Your task to perform on an android device: Clear all items from cart on target. Search for acer nitro on target, select the first entry, and add it to the cart. Image 0: 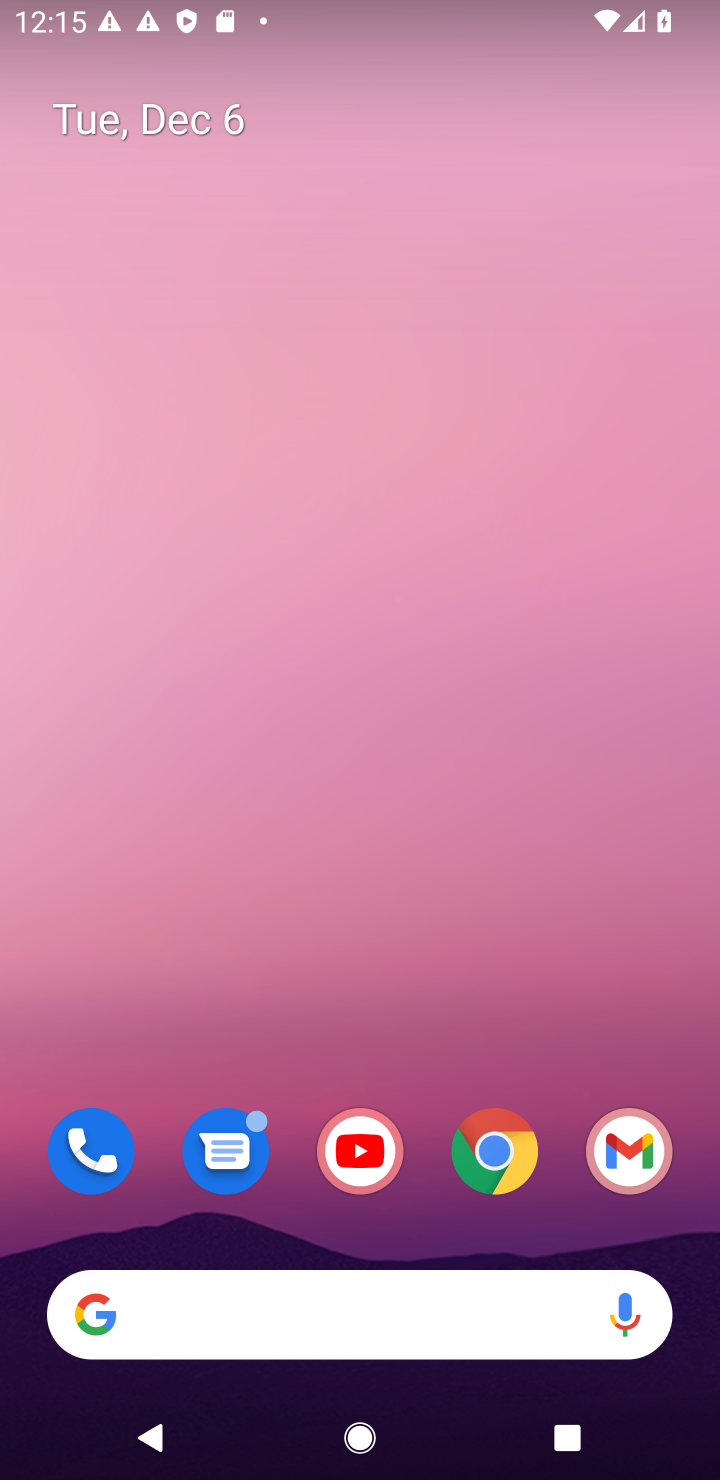
Step 0: click (505, 1153)
Your task to perform on an android device: Clear all items from cart on target. Search for acer nitro on target, select the first entry, and add it to the cart. Image 1: 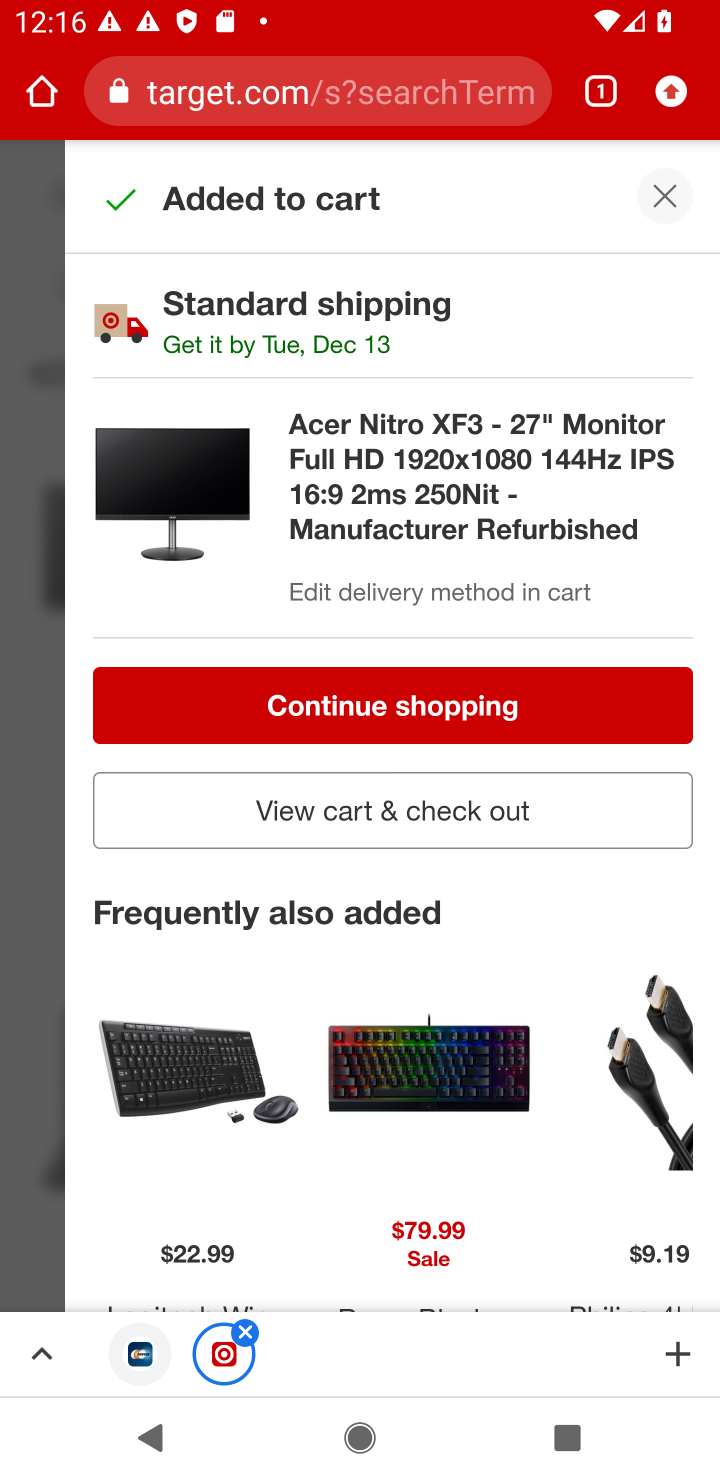
Step 1: click (668, 191)
Your task to perform on an android device: Clear all items from cart on target. Search for acer nitro on target, select the first entry, and add it to the cart. Image 2: 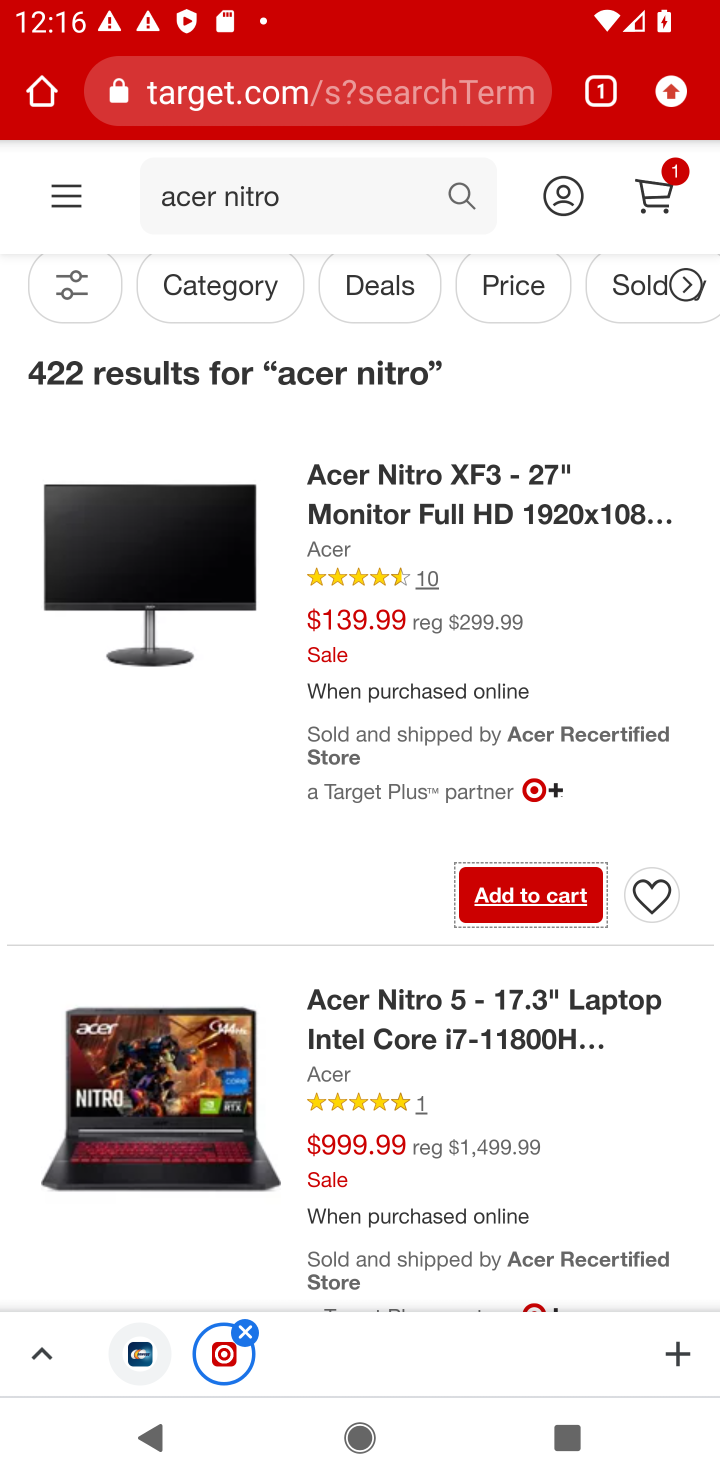
Step 2: click (661, 184)
Your task to perform on an android device: Clear all items from cart on target. Search for acer nitro on target, select the first entry, and add it to the cart. Image 3: 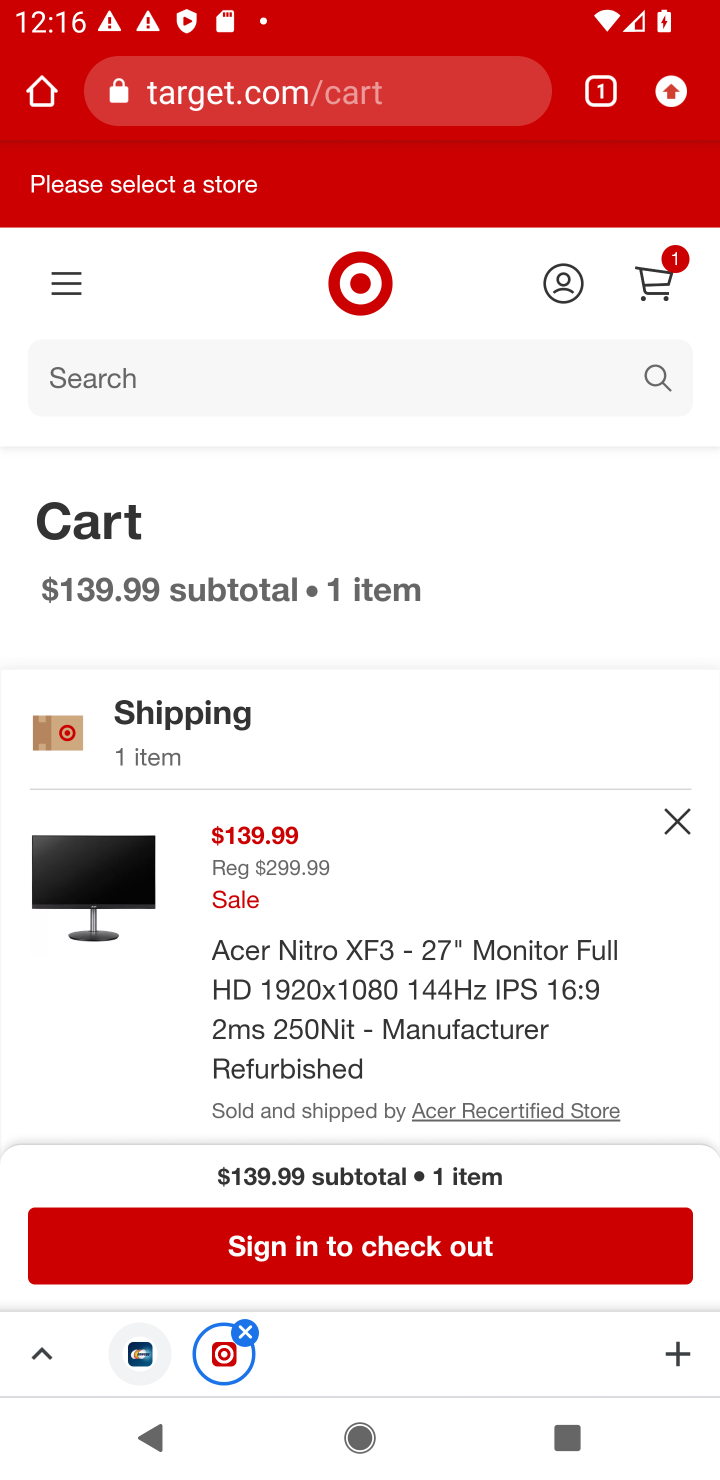
Step 3: drag from (239, 1027) to (274, 714)
Your task to perform on an android device: Clear all items from cart on target. Search for acer nitro on target, select the first entry, and add it to the cart. Image 4: 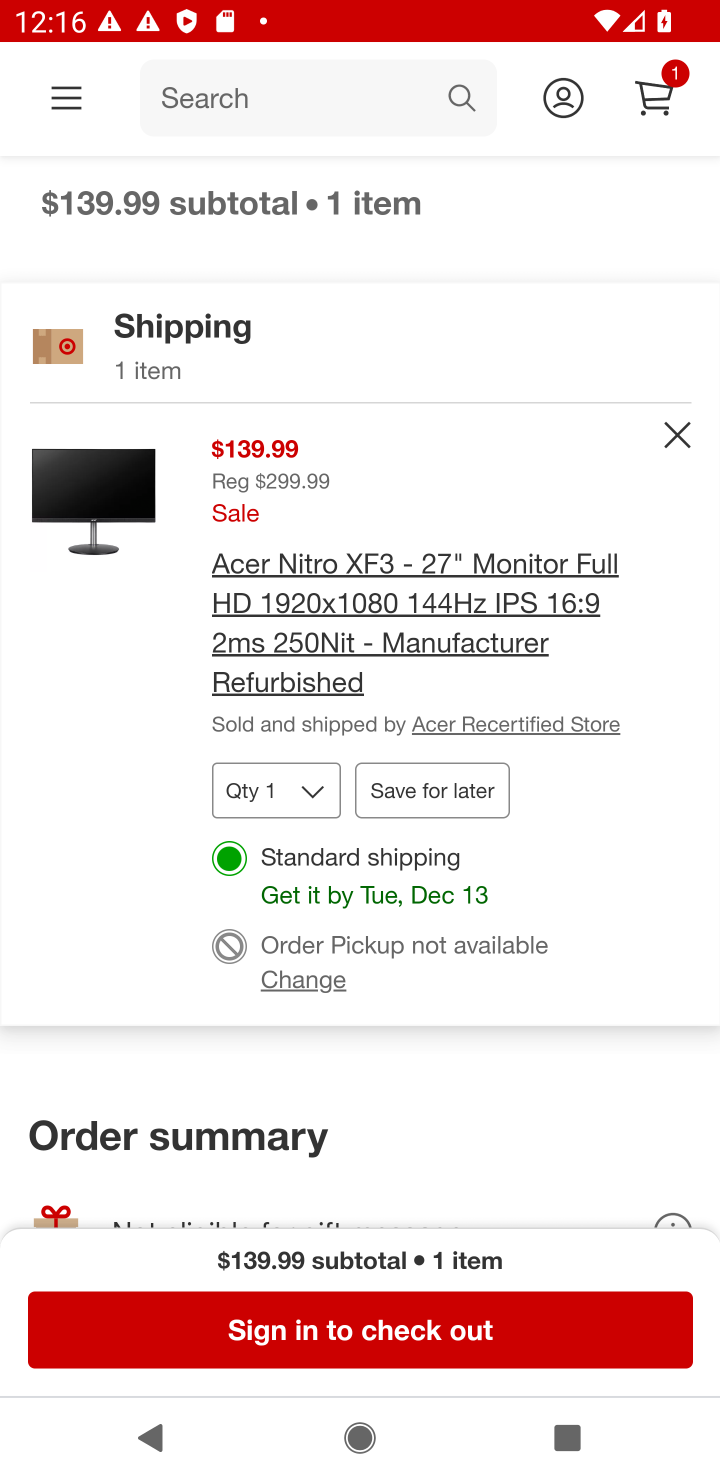
Step 4: click (683, 438)
Your task to perform on an android device: Clear all items from cart on target. Search for acer nitro on target, select the first entry, and add it to the cart. Image 5: 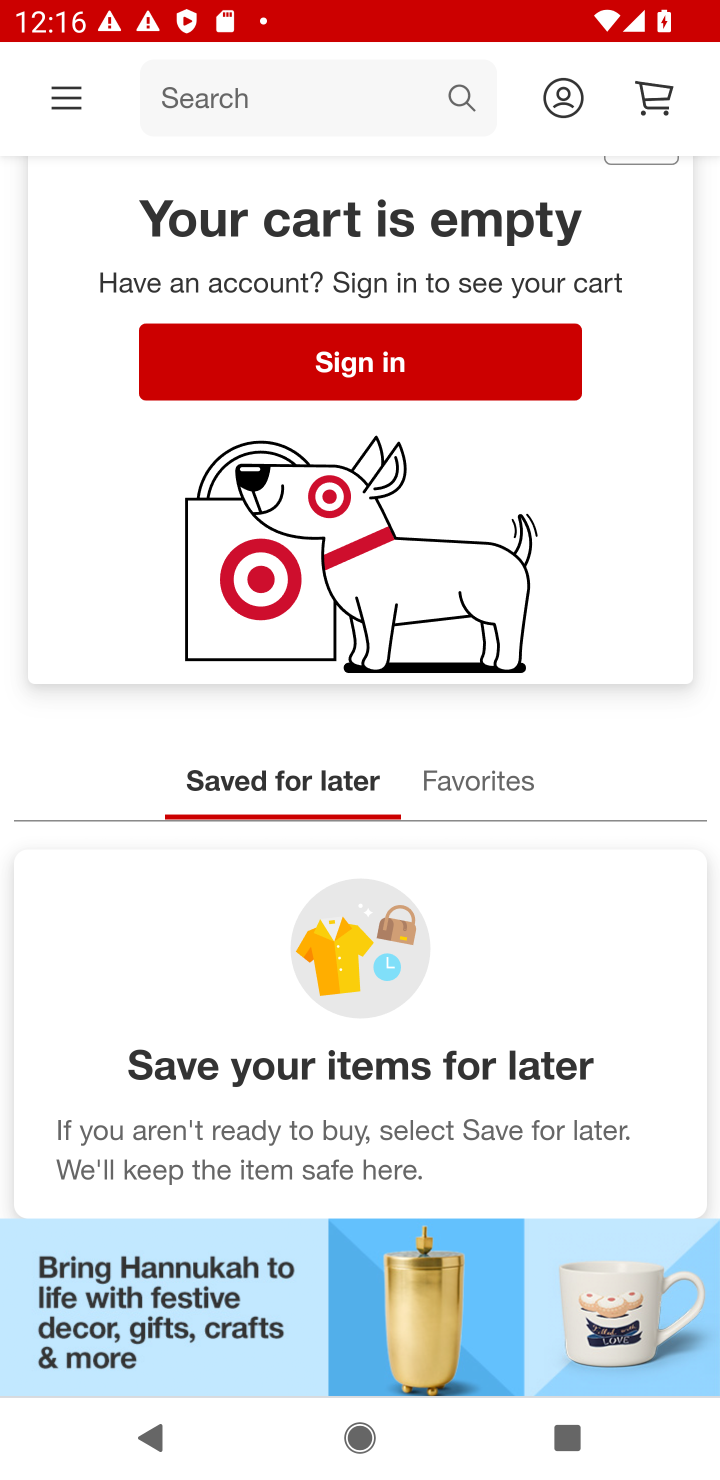
Step 5: click (465, 94)
Your task to perform on an android device: Clear all items from cart on target. Search for acer nitro on target, select the first entry, and add it to the cart. Image 6: 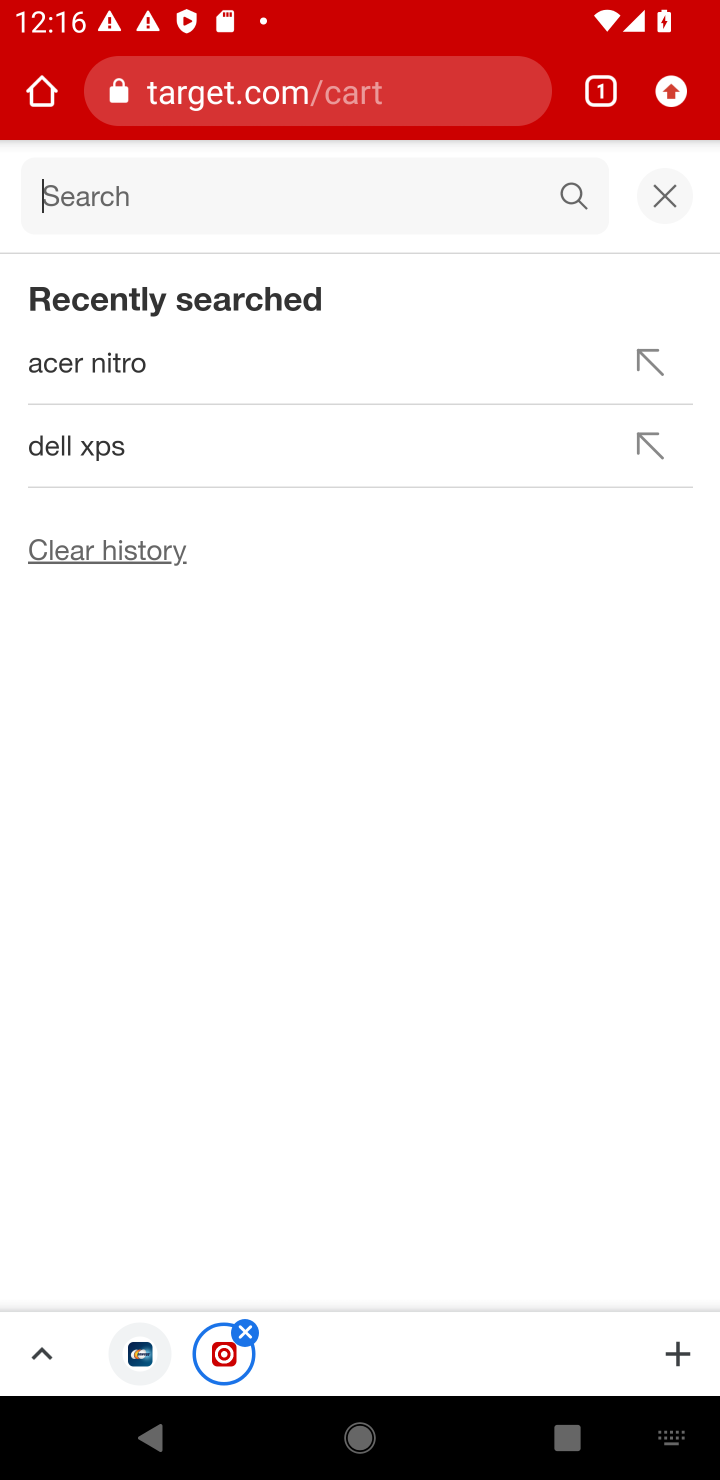
Step 6: type " acer nitro"
Your task to perform on an android device: Clear all items from cart on target. Search for acer nitro on target, select the first entry, and add it to the cart. Image 7: 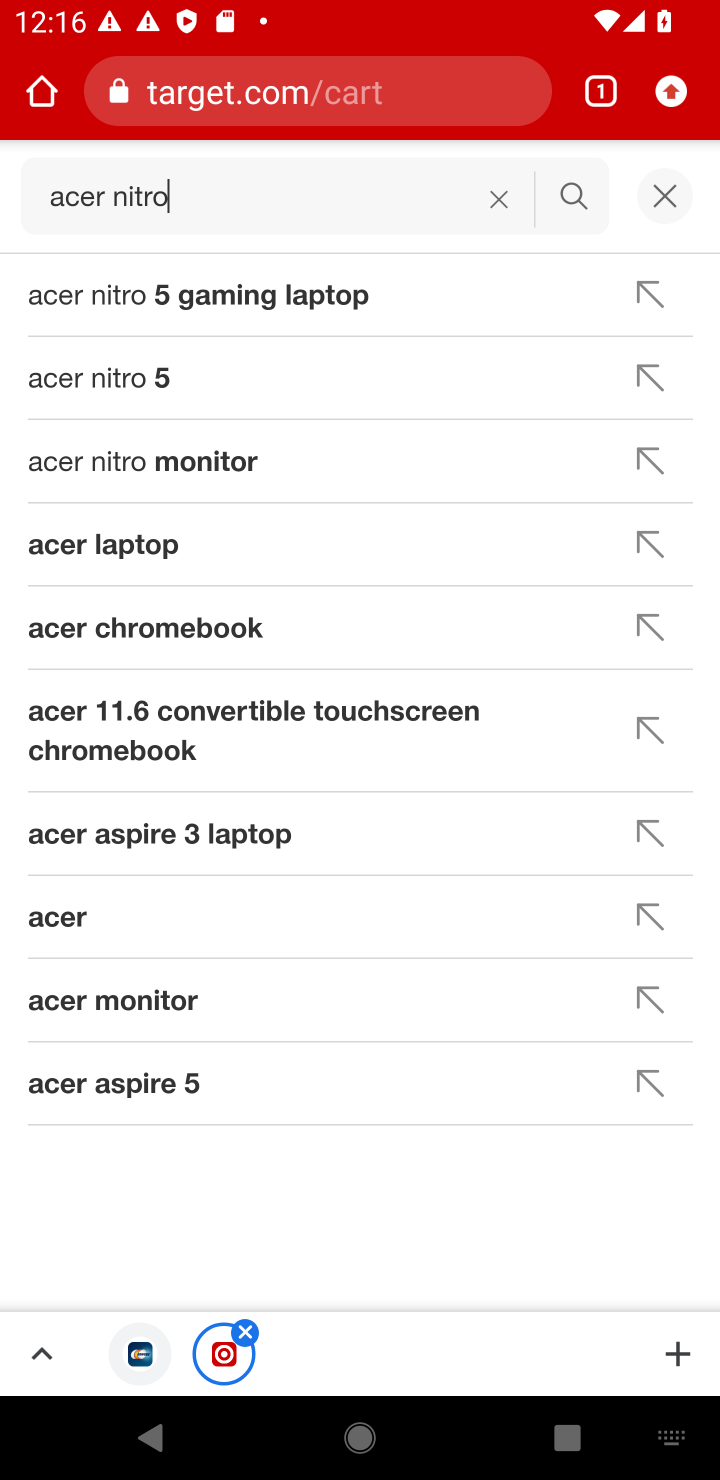
Step 7: click (568, 192)
Your task to perform on an android device: Clear all items from cart on target. Search for acer nitro on target, select the first entry, and add it to the cart. Image 8: 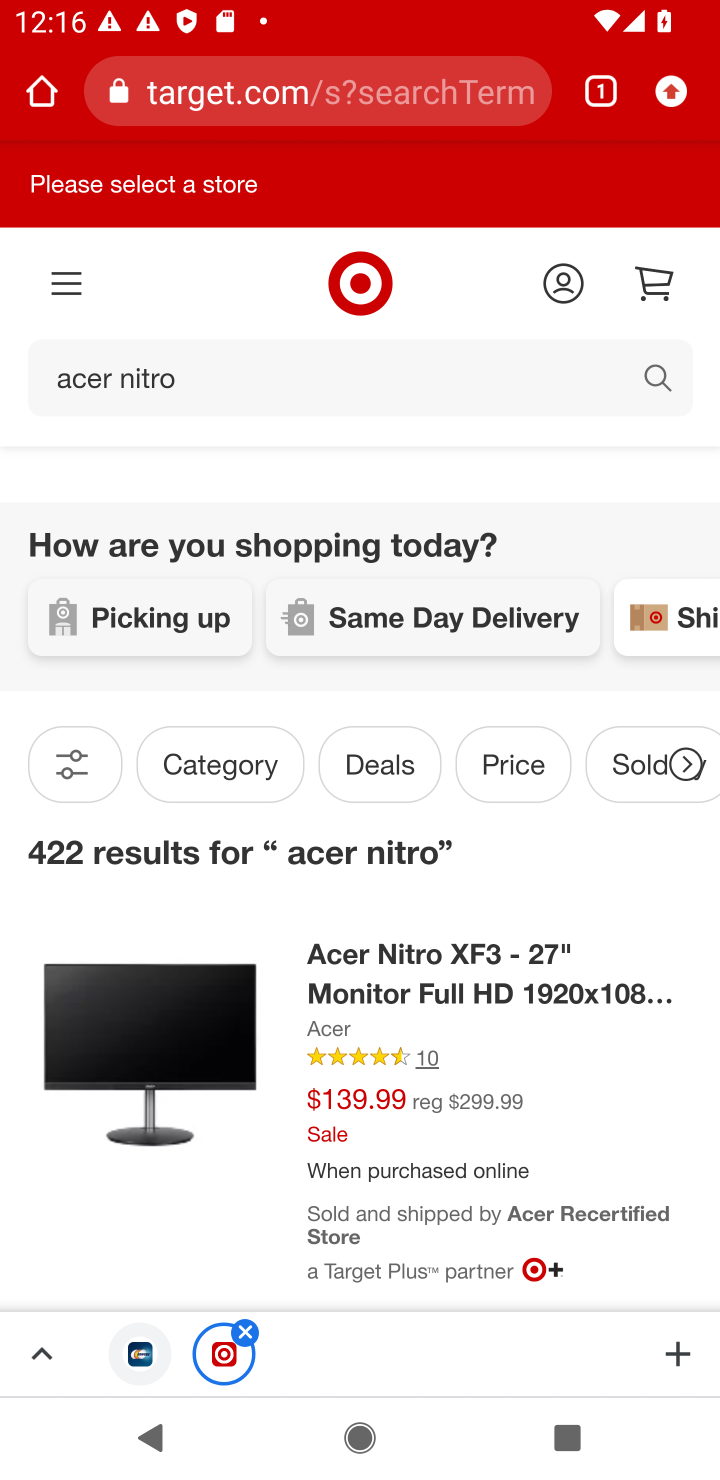
Step 8: drag from (385, 1109) to (413, 742)
Your task to perform on an android device: Clear all items from cart on target. Search for acer nitro on target, select the first entry, and add it to the cart. Image 9: 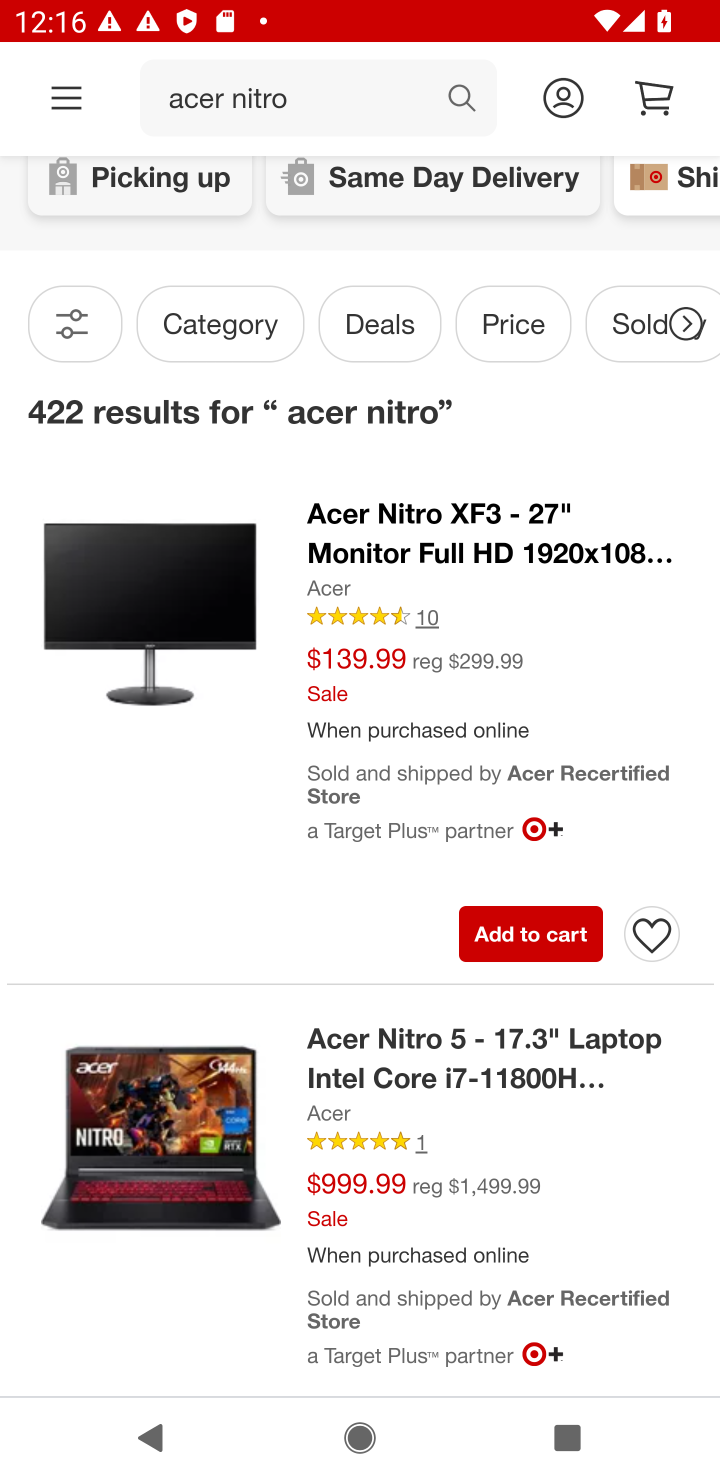
Step 9: click (525, 942)
Your task to perform on an android device: Clear all items from cart on target. Search for acer nitro on target, select the first entry, and add it to the cart. Image 10: 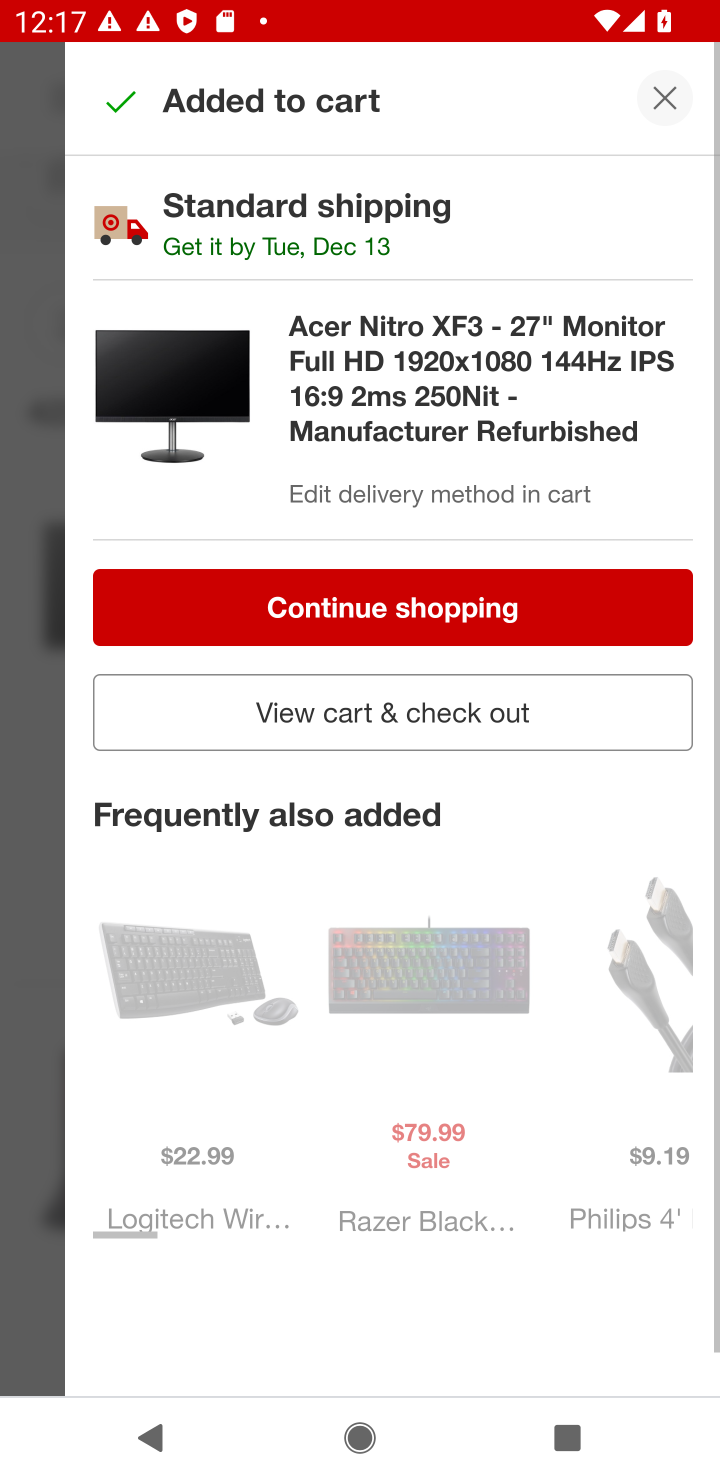
Step 10: task complete